Your task to perform on an android device: turn pop-ups off in chrome Image 0: 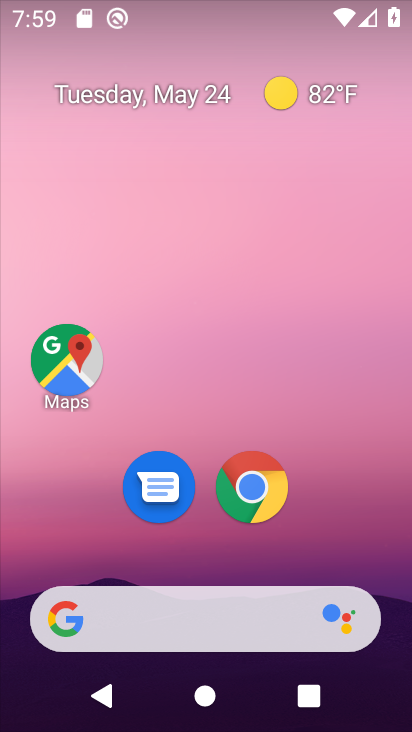
Step 0: click (329, 199)
Your task to perform on an android device: turn pop-ups off in chrome Image 1: 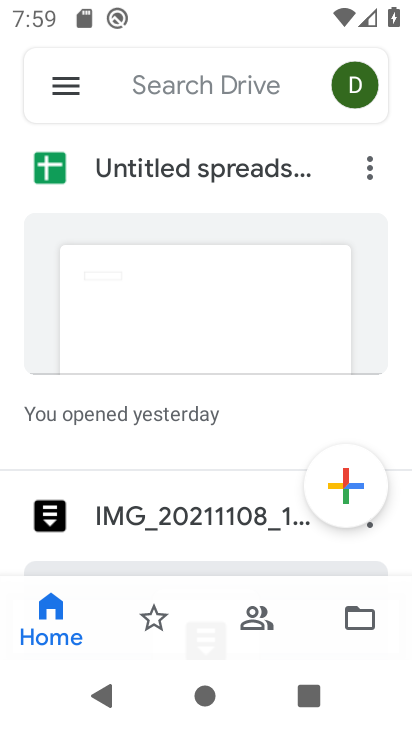
Step 1: press home button
Your task to perform on an android device: turn pop-ups off in chrome Image 2: 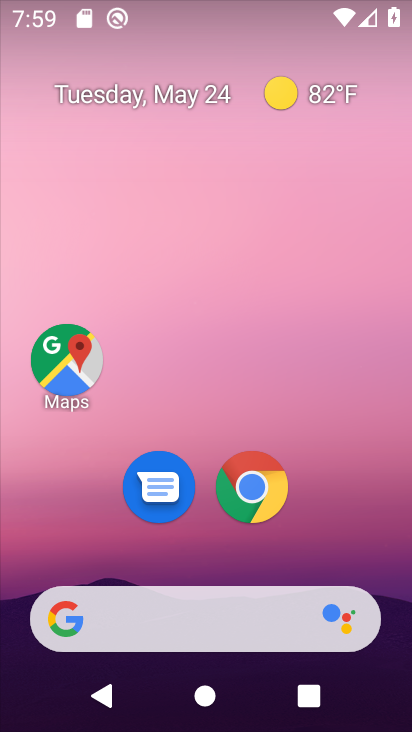
Step 2: drag from (355, 499) to (327, 135)
Your task to perform on an android device: turn pop-ups off in chrome Image 3: 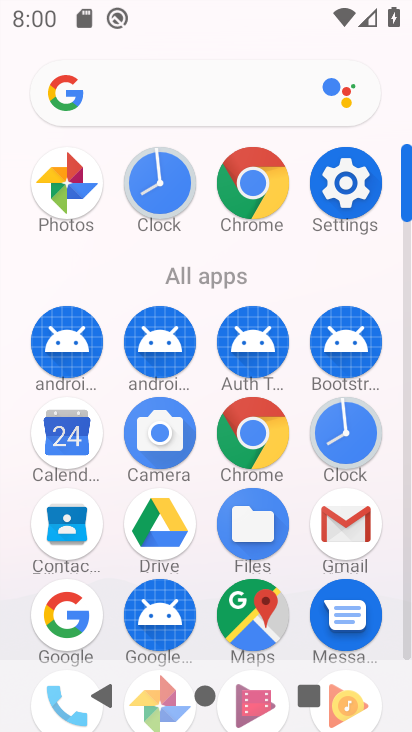
Step 3: click (275, 209)
Your task to perform on an android device: turn pop-ups off in chrome Image 4: 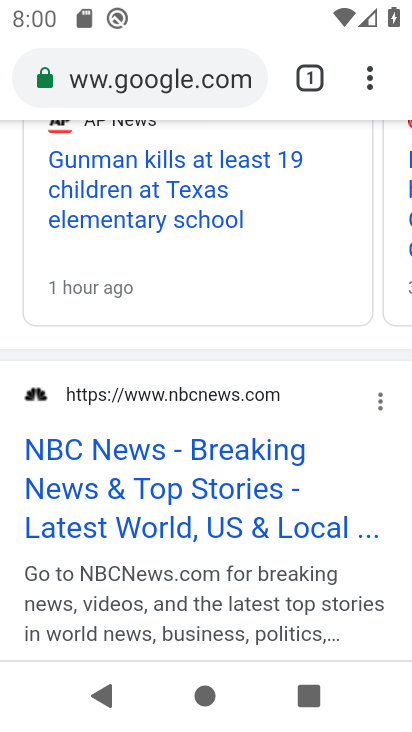
Step 4: drag from (368, 86) to (134, 544)
Your task to perform on an android device: turn pop-ups off in chrome Image 5: 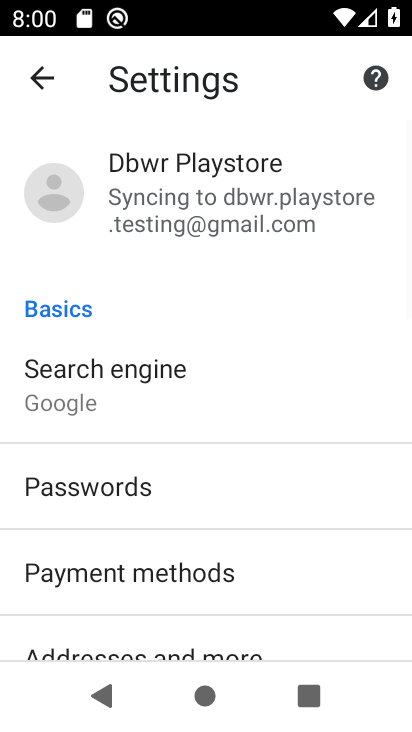
Step 5: drag from (271, 571) to (300, 297)
Your task to perform on an android device: turn pop-ups off in chrome Image 6: 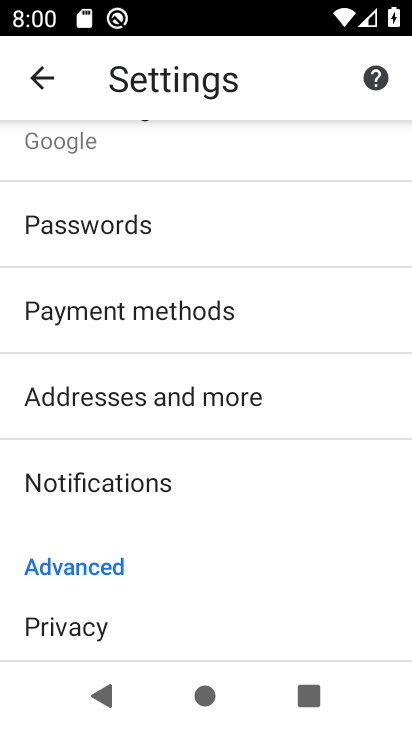
Step 6: drag from (273, 557) to (257, 258)
Your task to perform on an android device: turn pop-ups off in chrome Image 7: 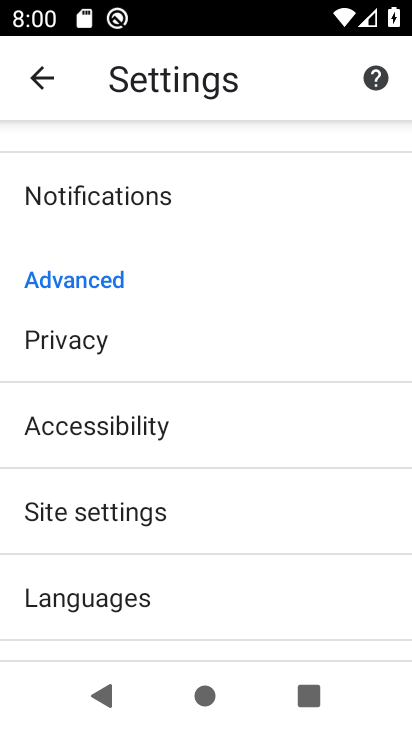
Step 7: click (123, 536)
Your task to perform on an android device: turn pop-ups off in chrome Image 8: 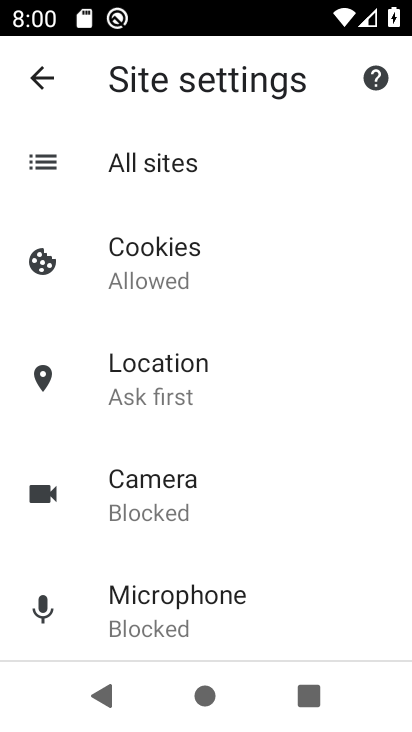
Step 8: drag from (181, 563) to (239, 336)
Your task to perform on an android device: turn pop-ups off in chrome Image 9: 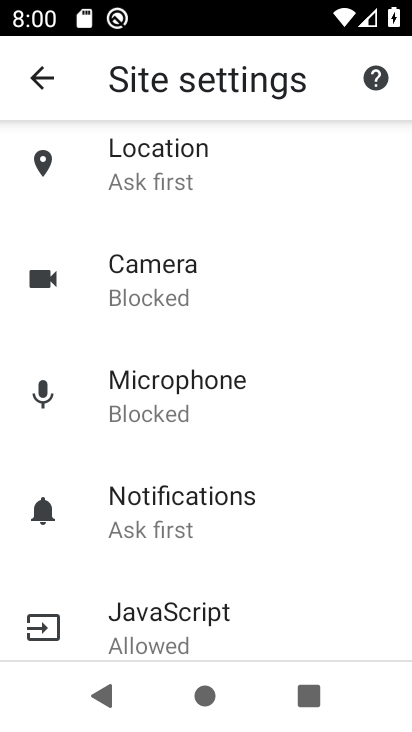
Step 9: drag from (202, 548) to (264, 264)
Your task to perform on an android device: turn pop-ups off in chrome Image 10: 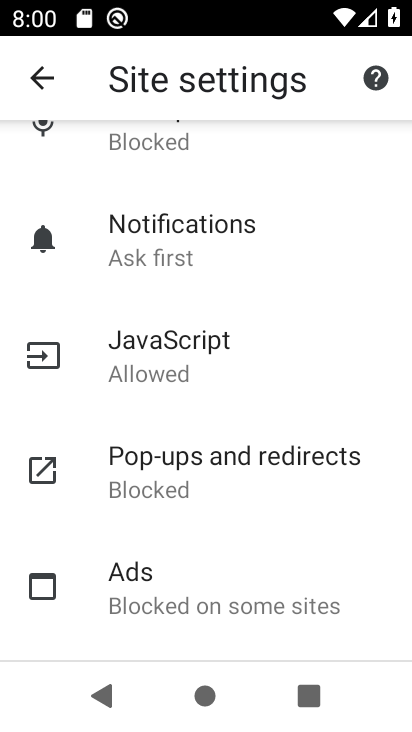
Step 10: click (233, 450)
Your task to perform on an android device: turn pop-ups off in chrome Image 11: 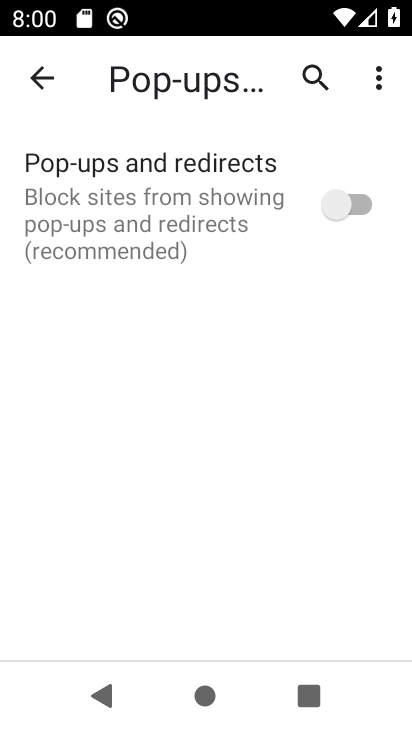
Step 11: task complete